Your task to perform on an android device: Go to Google maps Image 0: 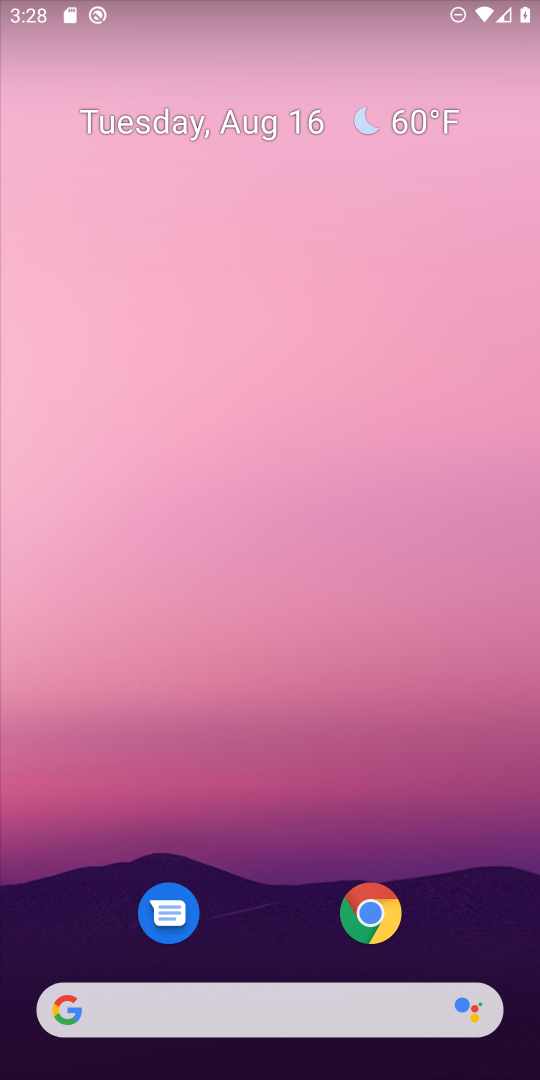
Step 0: drag from (495, 920) to (434, 198)
Your task to perform on an android device: Go to Google maps Image 1: 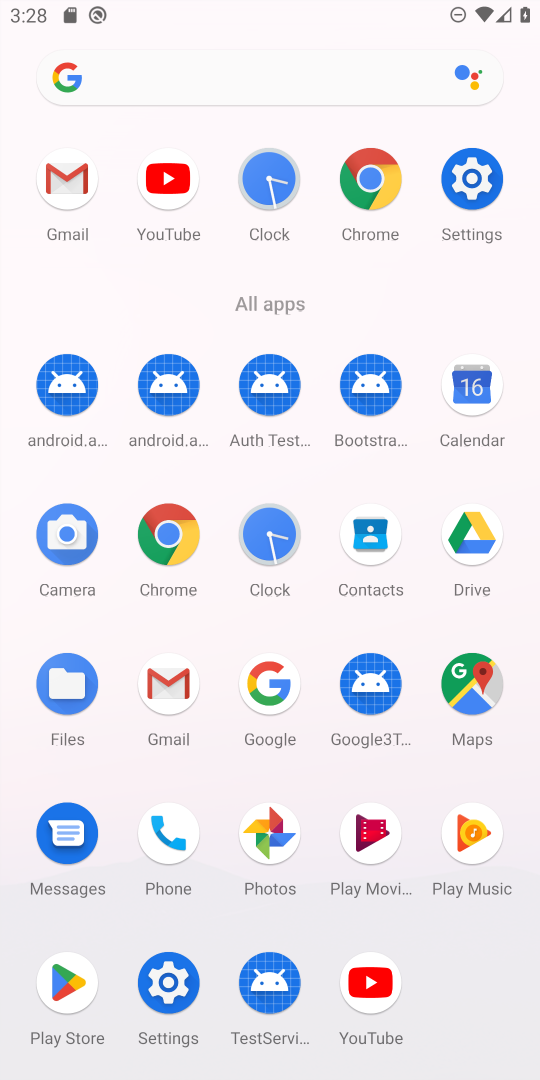
Step 1: click (476, 689)
Your task to perform on an android device: Go to Google maps Image 2: 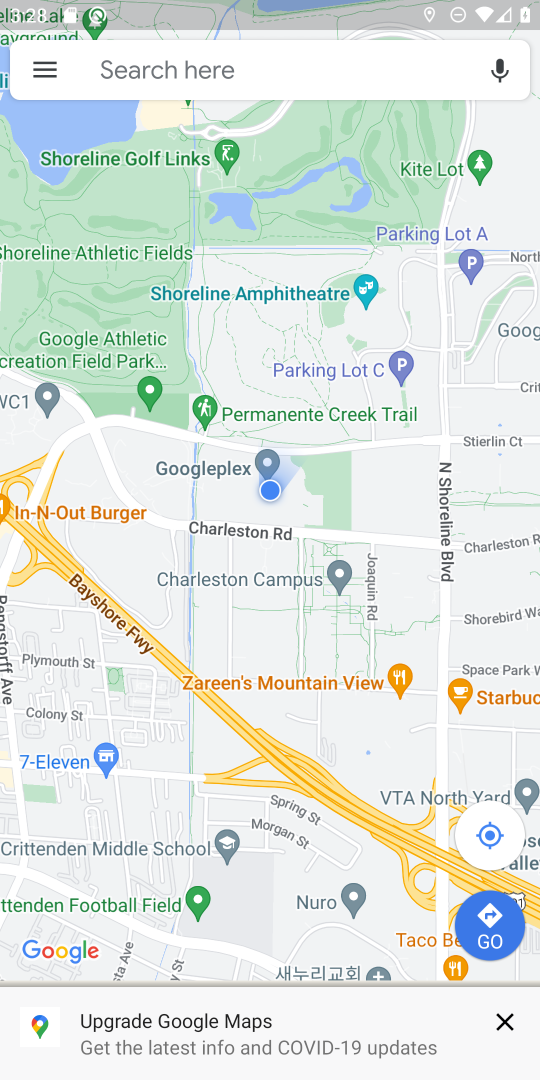
Step 2: task complete